Your task to perform on an android device: Open settings Image 0: 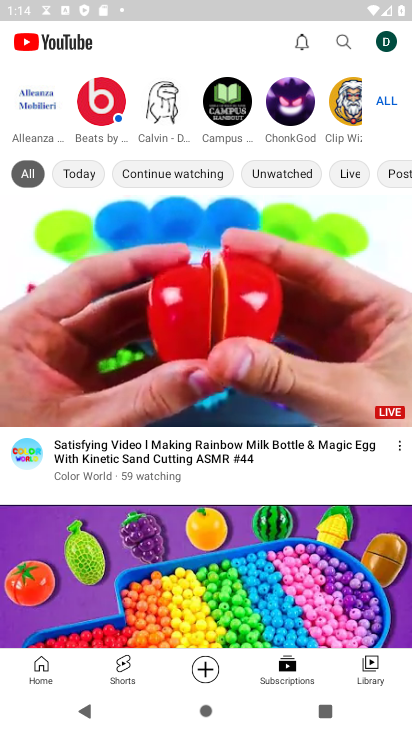
Step 0: press home button
Your task to perform on an android device: Open settings Image 1: 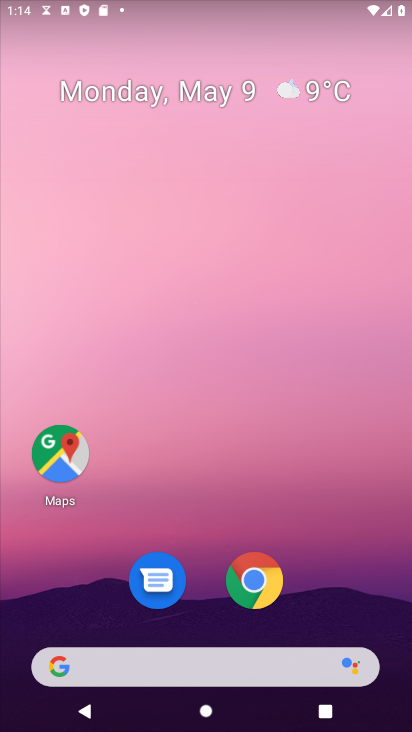
Step 1: drag from (318, 525) to (287, 98)
Your task to perform on an android device: Open settings Image 2: 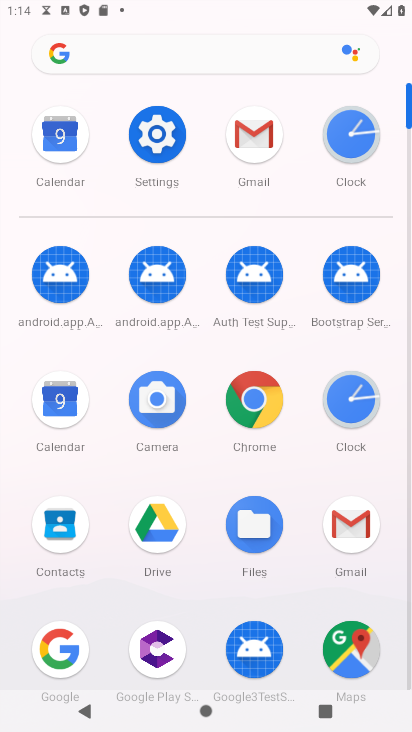
Step 2: click (167, 142)
Your task to perform on an android device: Open settings Image 3: 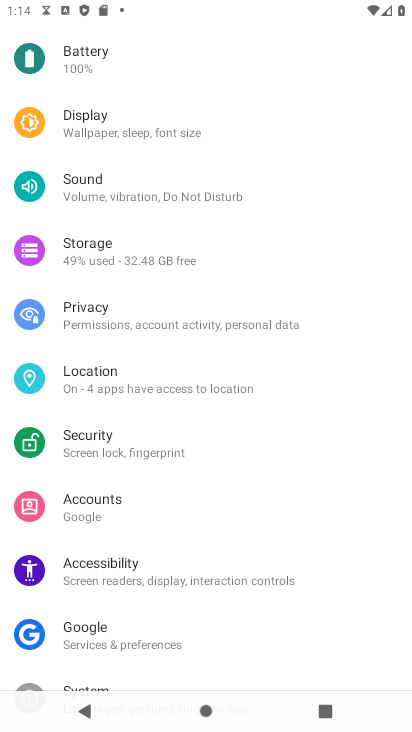
Step 3: task complete